Your task to perform on an android device: Go to Yahoo.com Image 0: 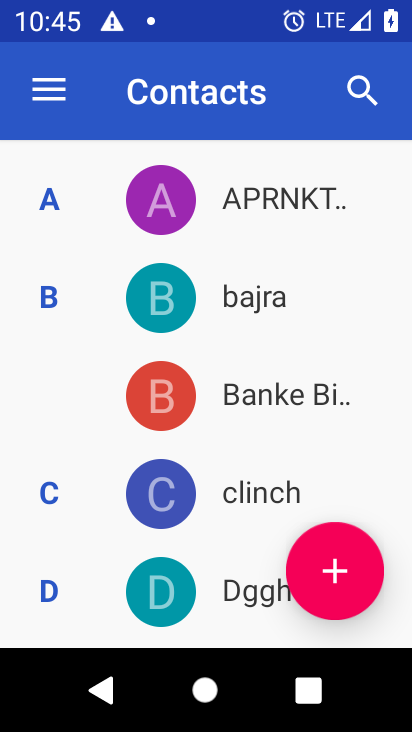
Step 0: press home button
Your task to perform on an android device: Go to Yahoo.com Image 1: 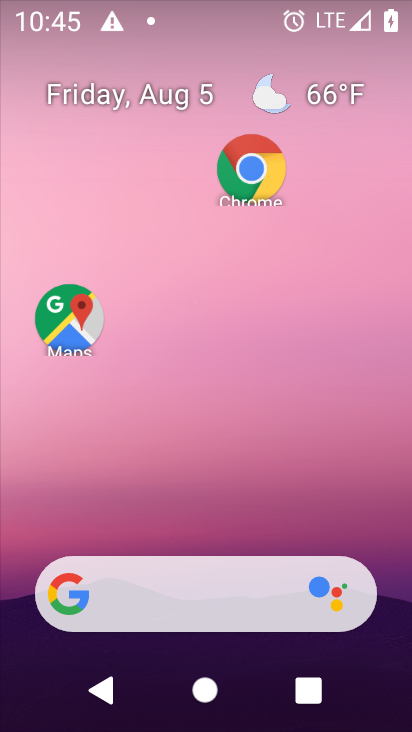
Step 1: click (239, 190)
Your task to perform on an android device: Go to Yahoo.com Image 2: 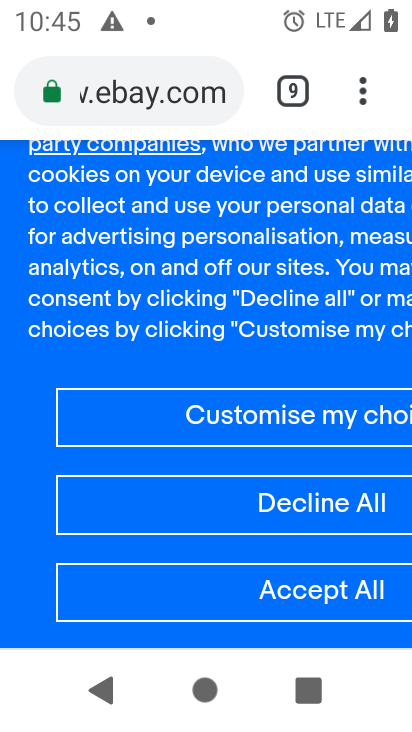
Step 2: drag from (306, 96) to (359, 96)
Your task to perform on an android device: Go to Yahoo.com Image 3: 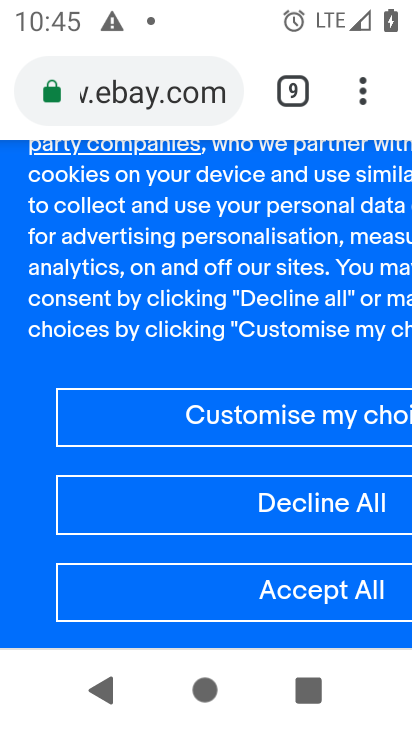
Step 3: click (302, 86)
Your task to perform on an android device: Go to Yahoo.com Image 4: 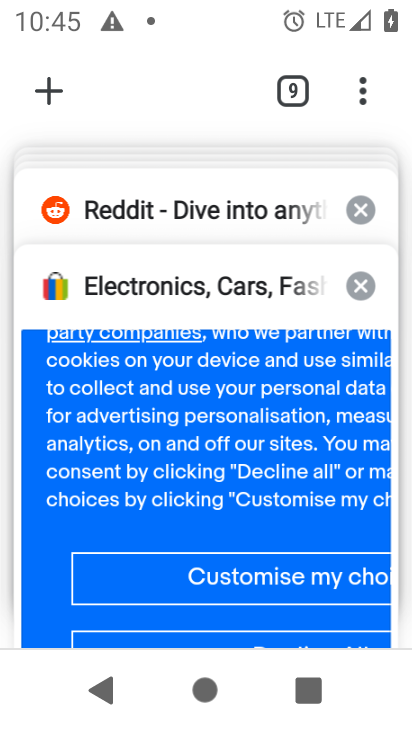
Step 4: click (8, 97)
Your task to perform on an android device: Go to Yahoo.com Image 5: 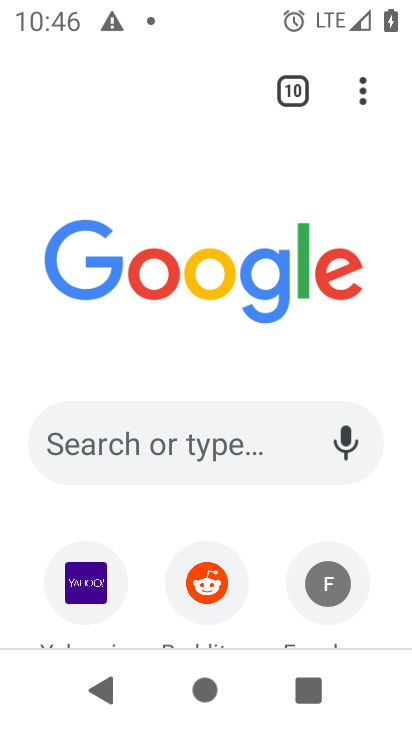
Step 5: click (108, 580)
Your task to perform on an android device: Go to Yahoo.com Image 6: 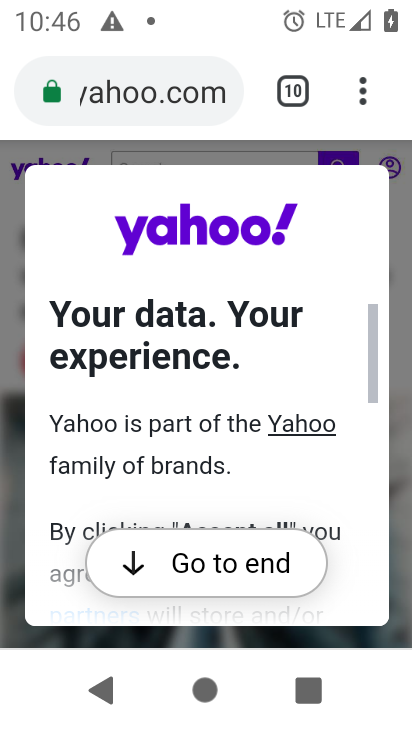
Step 6: task complete